Your task to perform on an android device: Open Google Chrome and open the bookmarks view Image 0: 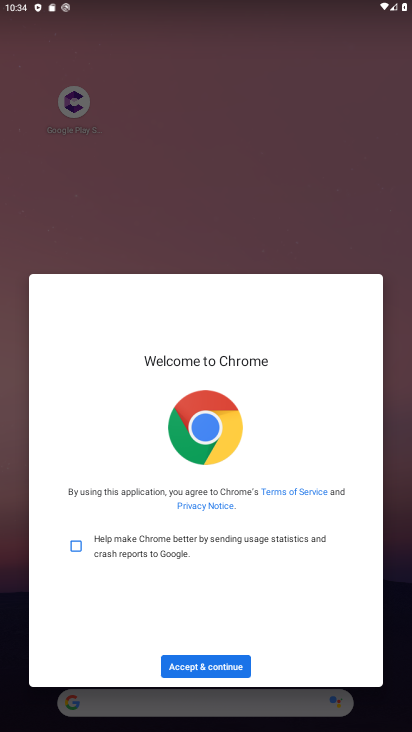
Step 0: drag from (245, 595) to (172, 208)
Your task to perform on an android device: Open Google Chrome and open the bookmarks view Image 1: 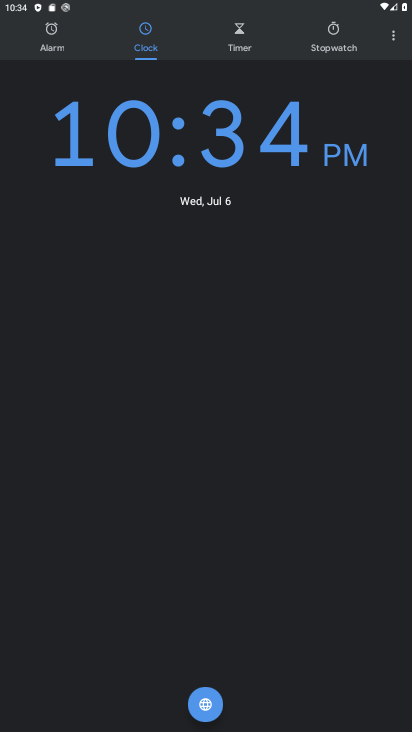
Step 1: press home button
Your task to perform on an android device: Open Google Chrome and open the bookmarks view Image 2: 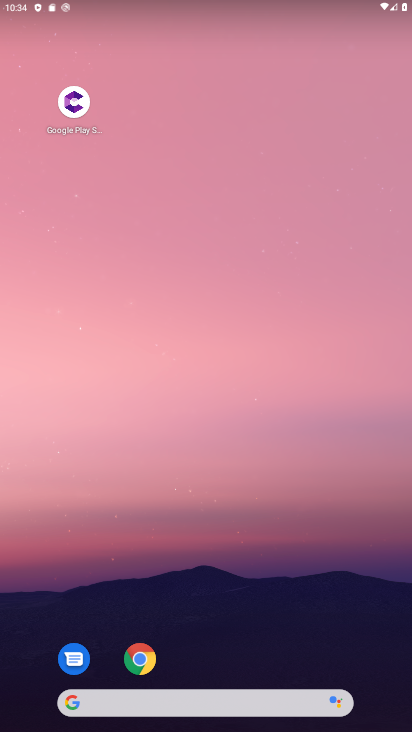
Step 2: click (133, 661)
Your task to perform on an android device: Open Google Chrome and open the bookmarks view Image 3: 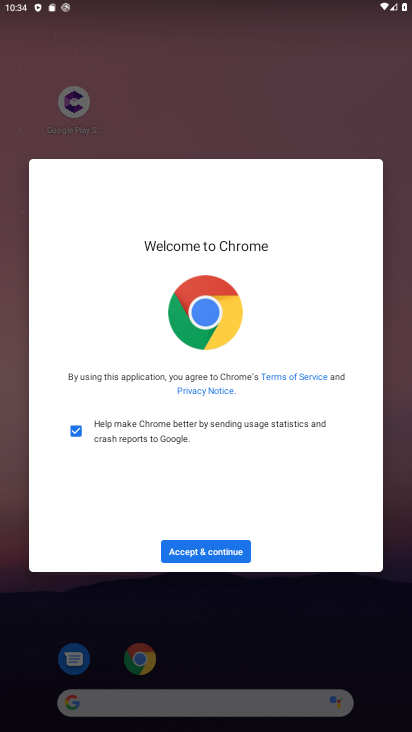
Step 3: click (199, 549)
Your task to perform on an android device: Open Google Chrome and open the bookmarks view Image 4: 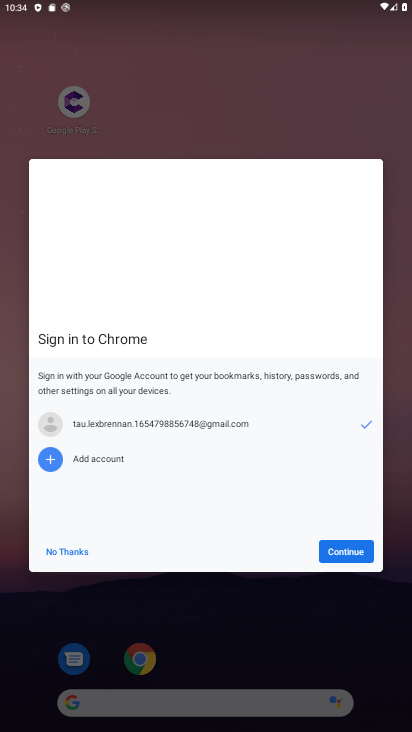
Step 4: click (353, 548)
Your task to perform on an android device: Open Google Chrome and open the bookmarks view Image 5: 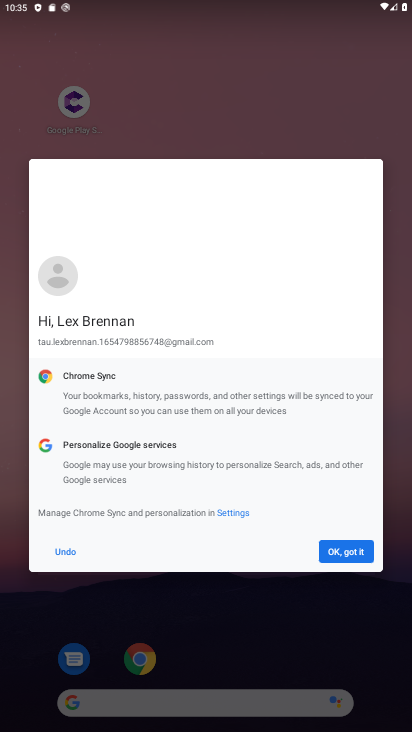
Step 5: click (353, 553)
Your task to perform on an android device: Open Google Chrome and open the bookmarks view Image 6: 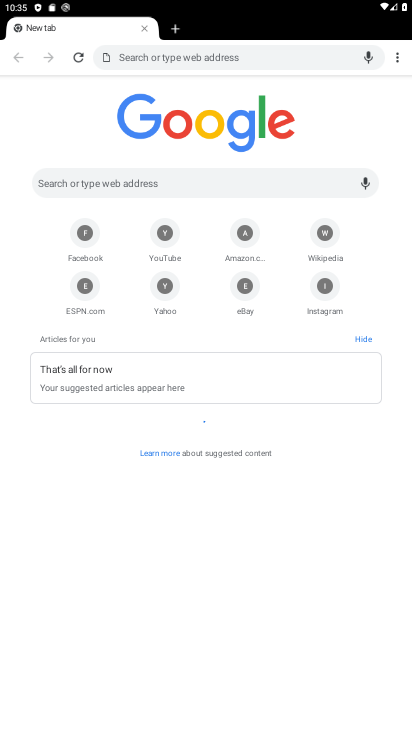
Step 6: click (397, 59)
Your task to perform on an android device: Open Google Chrome and open the bookmarks view Image 7: 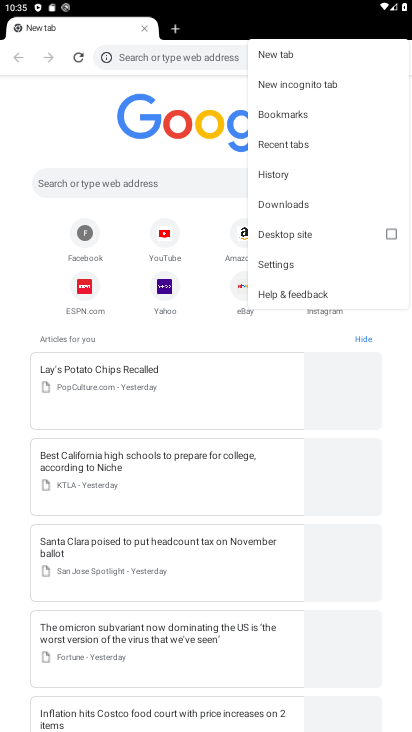
Step 7: click (289, 108)
Your task to perform on an android device: Open Google Chrome and open the bookmarks view Image 8: 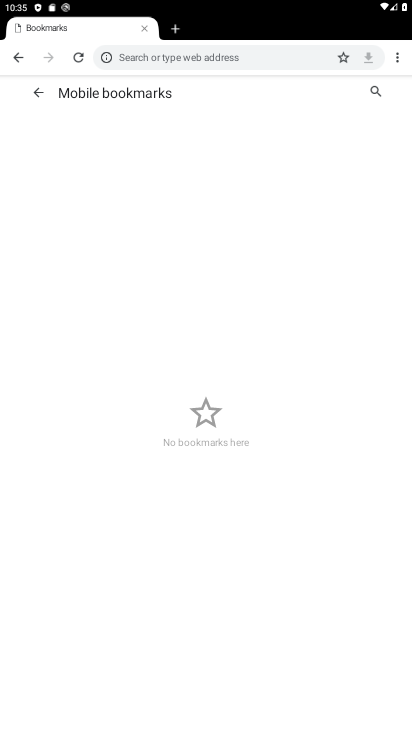
Step 8: task complete